Your task to perform on an android device: Open display settings Image 0: 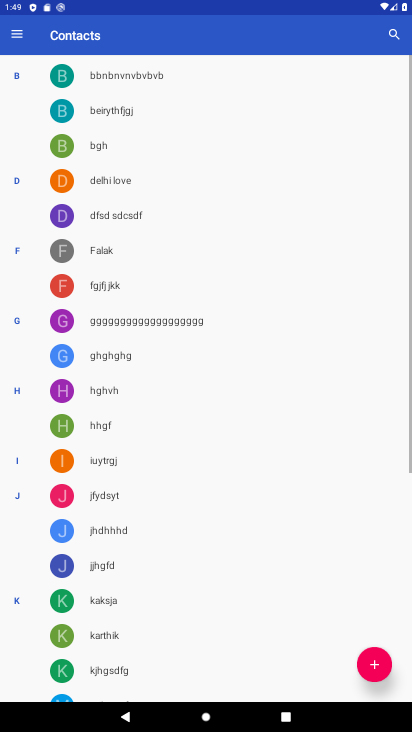
Step 0: drag from (227, 577) to (220, 520)
Your task to perform on an android device: Open display settings Image 1: 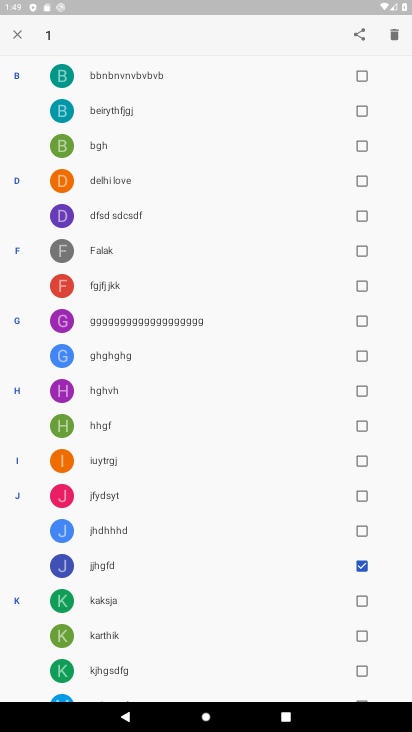
Step 1: press home button
Your task to perform on an android device: Open display settings Image 2: 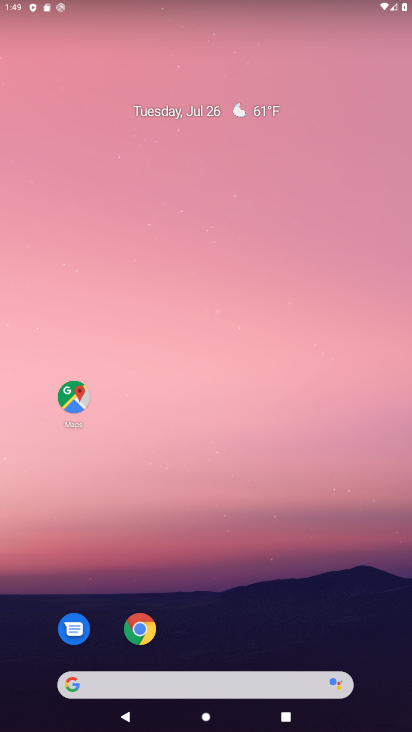
Step 2: drag from (247, 592) to (206, 72)
Your task to perform on an android device: Open display settings Image 3: 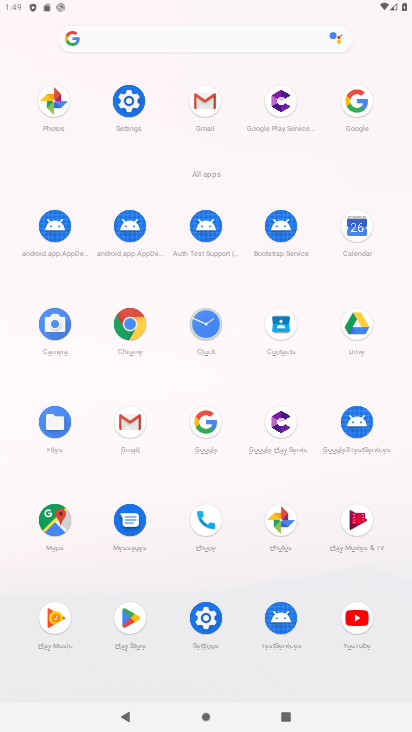
Step 3: click (126, 95)
Your task to perform on an android device: Open display settings Image 4: 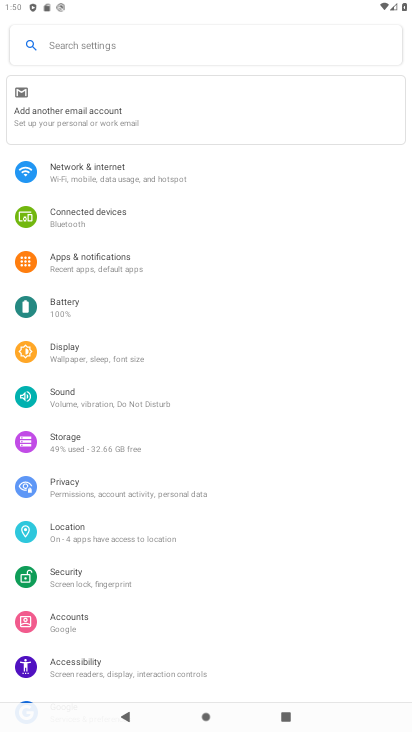
Step 4: click (64, 349)
Your task to perform on an android device: Open display settings Image 5: 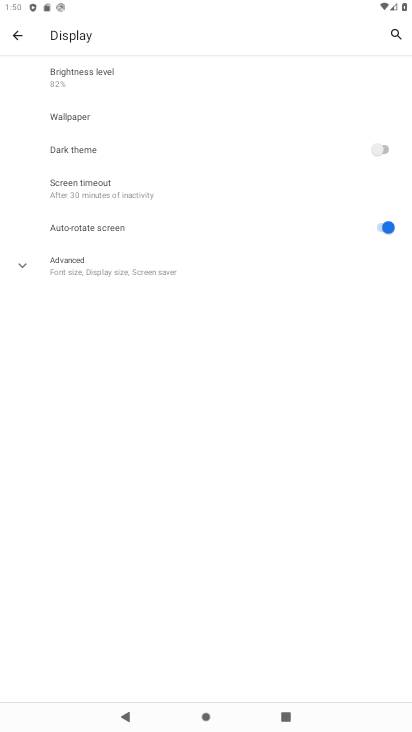
Step 5: task complete